Your task to perform on an android device: Add "usb-a to usb-b" to the cart on newegg.com, then select checkout. Image 0: 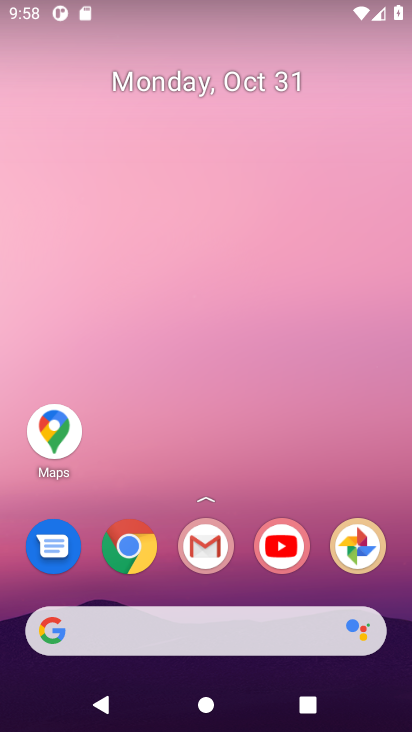
Step 0: click (144, 570)
Your task to perform on an android device: Add "usb-a to usb-b" to the cart on newegg.com, then select checkout. Image 1: 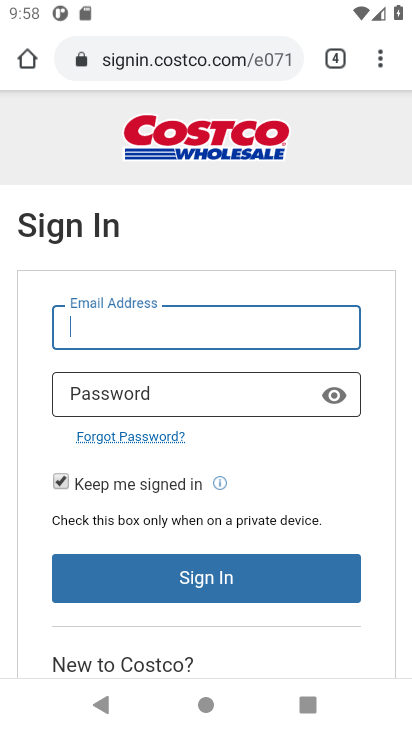
Step 1: click (159, 55)
Your task to perform on an android device: Add "usb-a to usb-b" to the cart on newegg.com, then select checkout. Image 2: 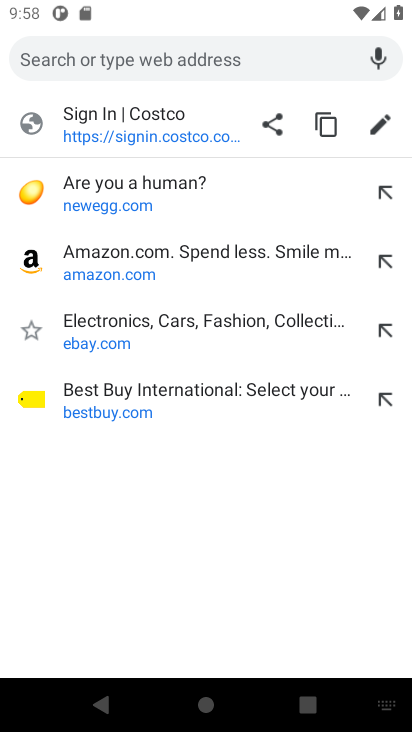
Step 2: type "usb-a to usb-b"
Your task to perform on an android device: Add "usb-a to usb-b" to the cart on newegg.com, then select checkout. Image 3: 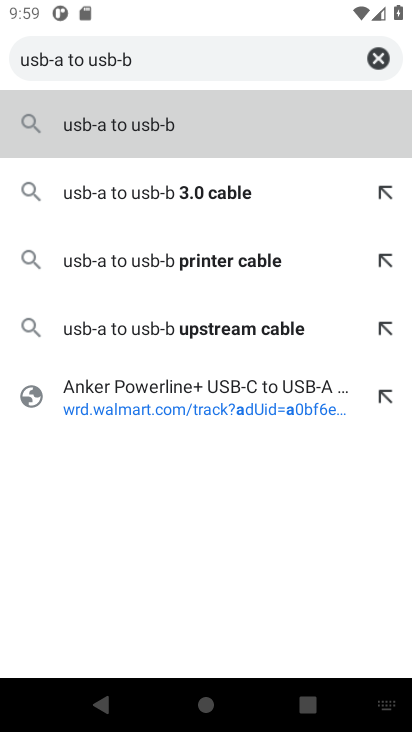
Step 3: press enter
Your task to perform on an android device: Add "usb-a to usb-b" to the cart on newegg.com, then select checkout. Image 4: 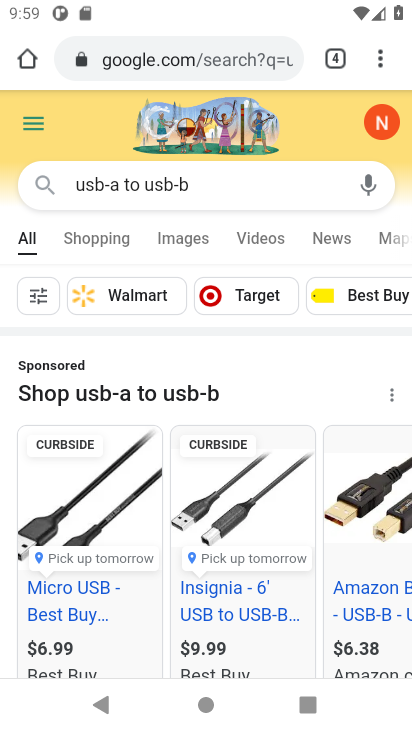
Step 4: click (245, 195)
Your task to perform on an android device: Add "usb-a to usb-b" to the cart on newegg.com, then select checkout. Image 5: 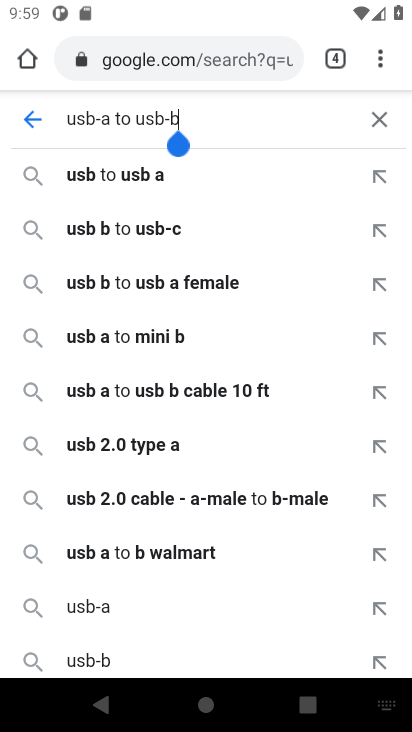
Step 5: type " on newwgg"
Your task to perform on an android device: Add "usb-a to usb-b" to the cart on newegg.com, then select checkout. Image 6: 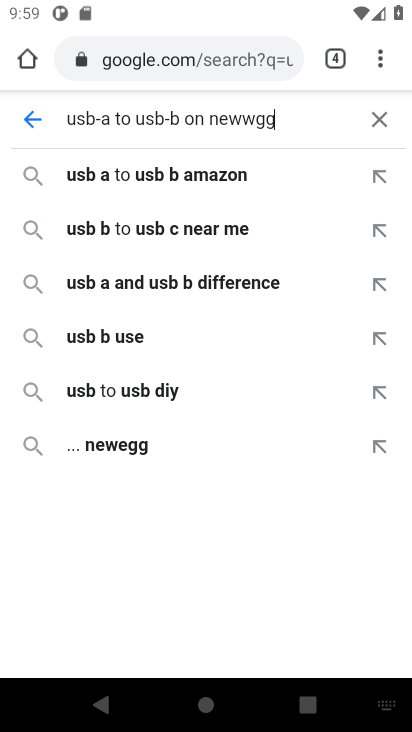
Step 6: press enter
Your task to perform on an android device: Add "usb-a to usb-b" to the cart on newegg.com, then select checkout. Image 7: 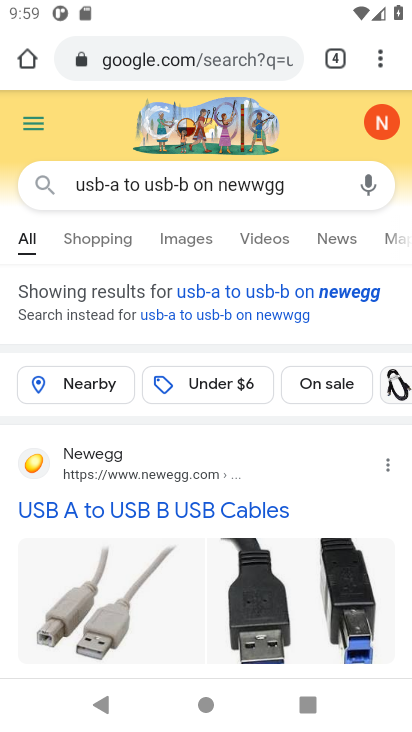
Step 7: drag from (252, 538) to (282, 343)
Your task to perform on an android device: Add "usb-a to usb-b" to the cart on newegg.com, then select checkout. Image 8: 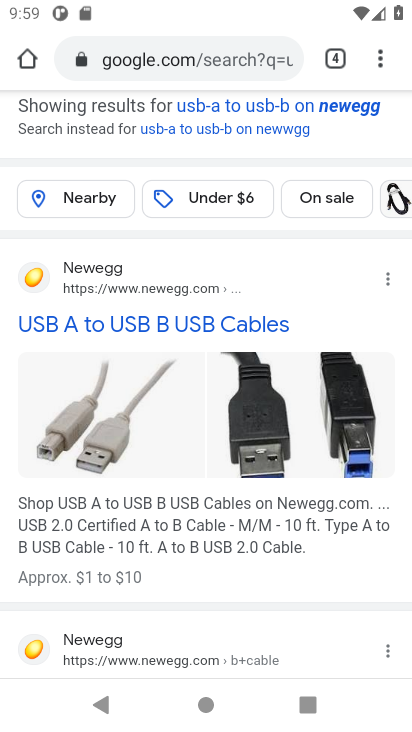
Step 8: click (152, 328)
Your task to perform on an android device: Add "usb-a to usb-b" to the cart on newegg.com, then select checkout. Image 9: 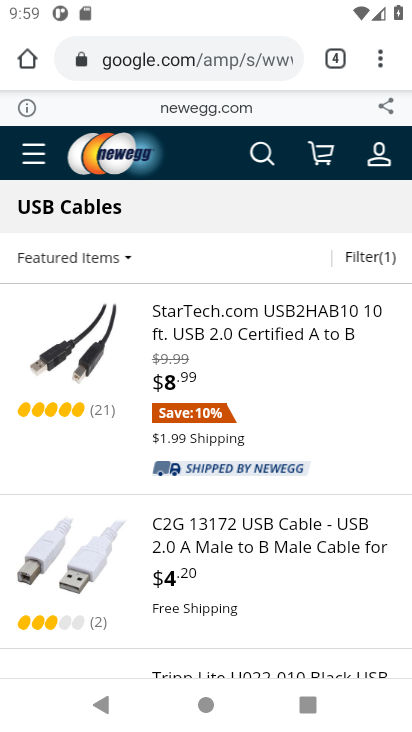
Step 9: click (236, 338)
Your task to perform on an android device: Add "usb-a to usb-b" to the cart on newegg.com, then select checkout. Image 10: 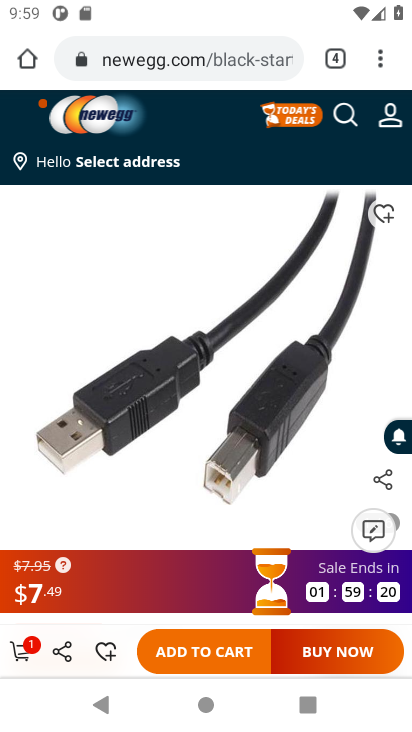
Step 10: click (235, 652)
Your task to perform on an android device: Add "usb-a to usb-b" to the cart on newegg.com, then select checkout. Image 11: 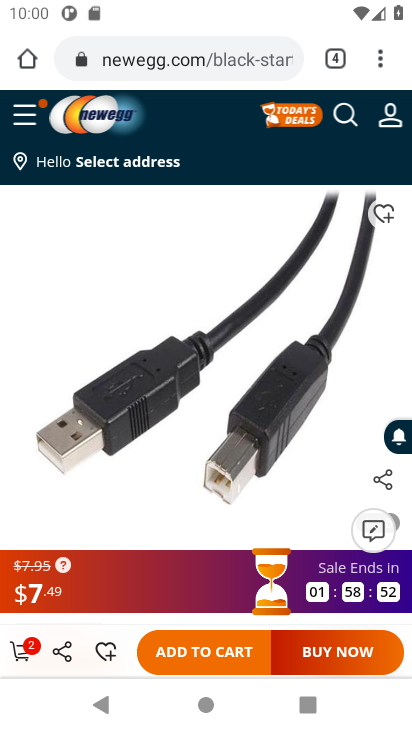
Step 11: click (29, 115)
Your task to perform on an android device: Add "usb-a to usb-b" to the cart on newegg.com, then select checkout. Image 12: 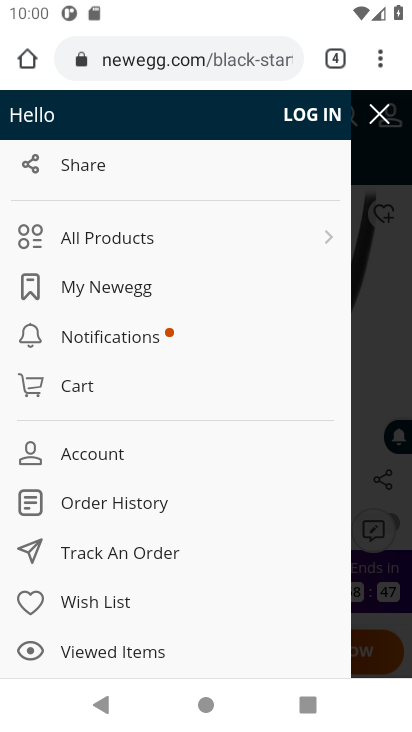
Step 12: click (84, 390)
Your task to perform on an android device: Add "usb-a to usb-b" to the cart on newegg.com, then select checkout. Image 13: 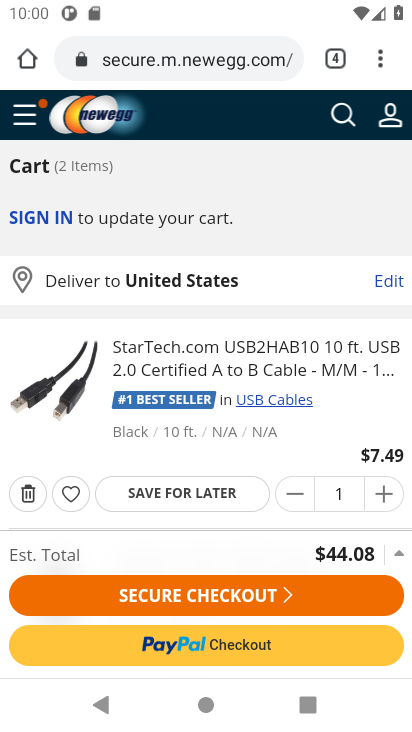
Step 13: click (226, 593)
Your task to perform on an android device: Add "usb-a to usb-b" to the cart on newegg.com, then select checkout. Image 14: 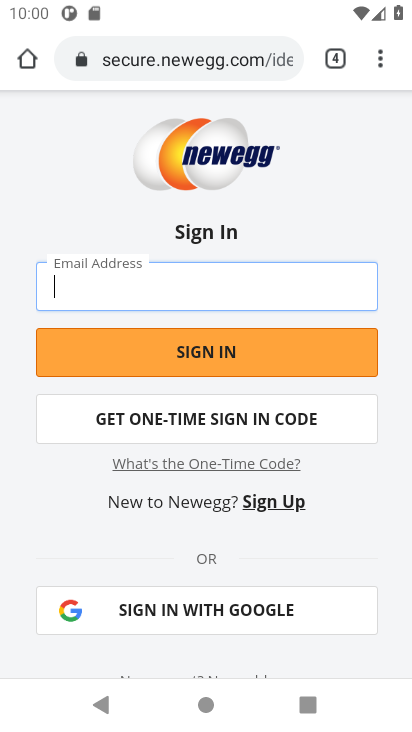
Step 14: task complete